Your task to perform on an android device: check google app version Image 0: 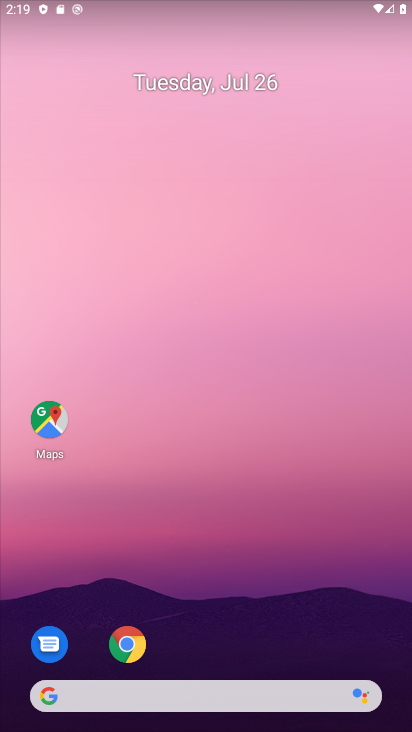
Step 0: press home button
Your task to perform on an android device: check google app version Image 1: 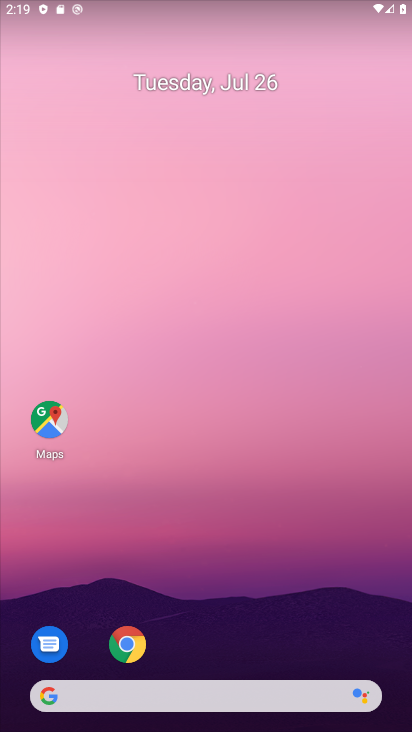
Step 1: drag from (273, 501) to (273, 159)
Your task to perform on an android device: check google app version Image 2: 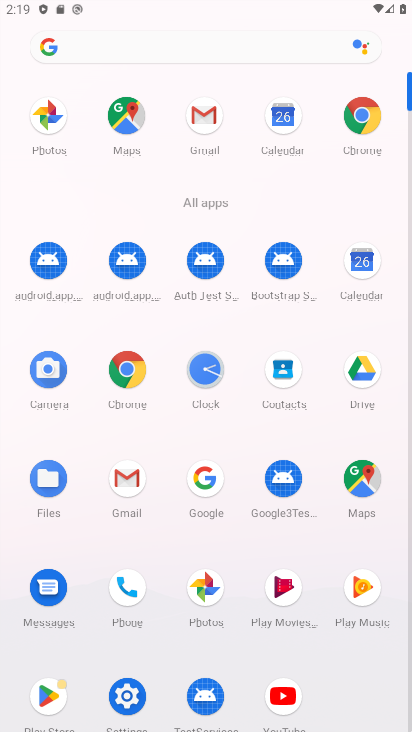
Step 2: click (202, 485)
Your task to perform on an android device: check google app version Image 3: 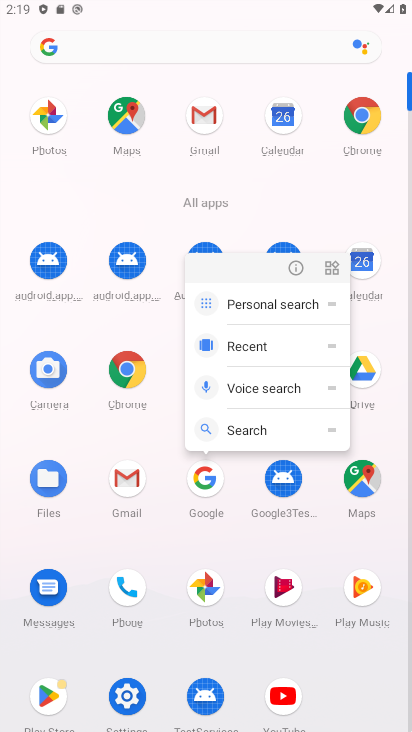
Step 3: click (298, 268)
Your task to perform on an android device: check google app version Image 4: 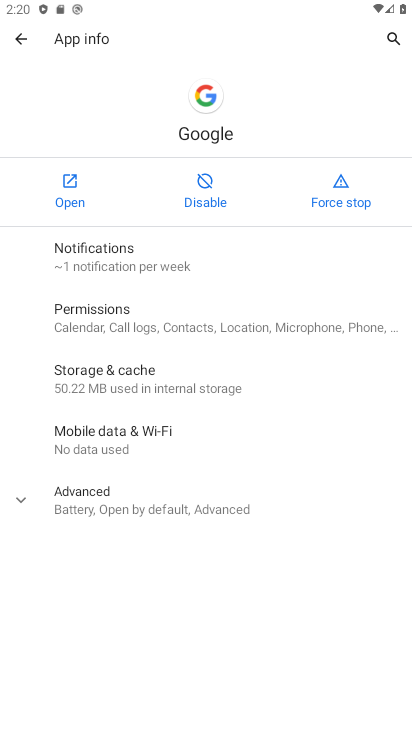
Step 4: click (32, 496)
Your task to perform on an android device: check google app version Image 5: 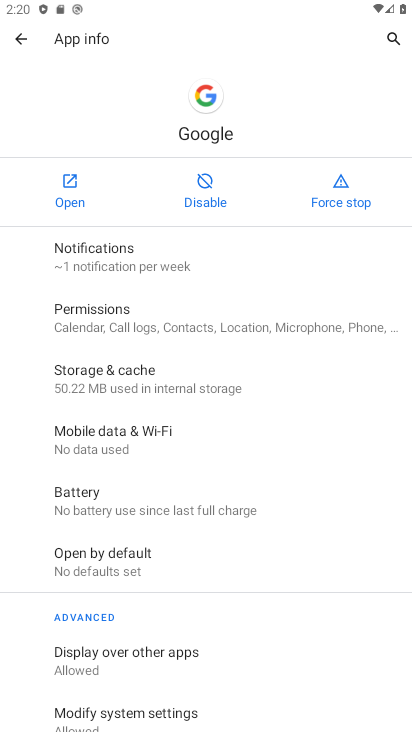
Step 5: task complete